Your task to perform on an android device: empty trash in the gmail app Image 0: 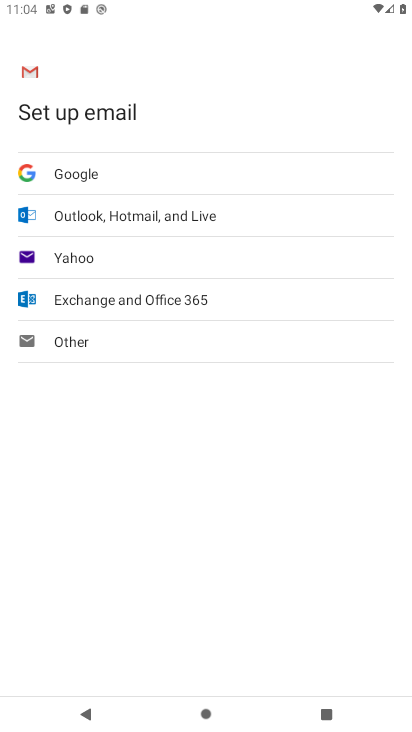
Step 0: press home button
Your task to perform on an android device: empty trash in the gmail app Image 1: 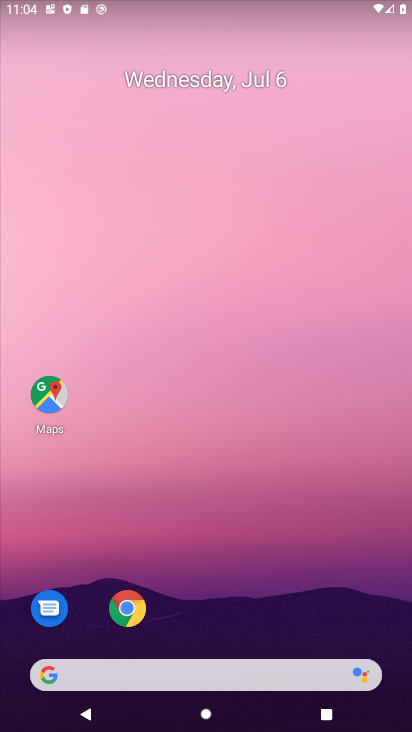
Step 1: drag from (196, 649) to (180, 10)
Your task to perform on an android device: empty trash in the gmail app Image 2: 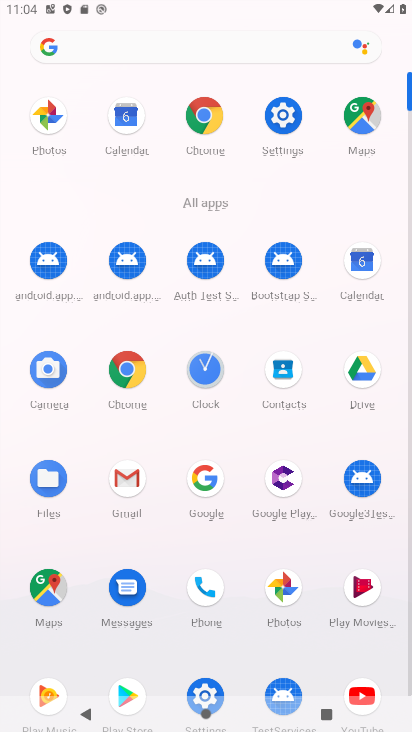
Step 2: click (126, 491)
Your task to perform on an android device: empty trash in the gmail app Image 3: 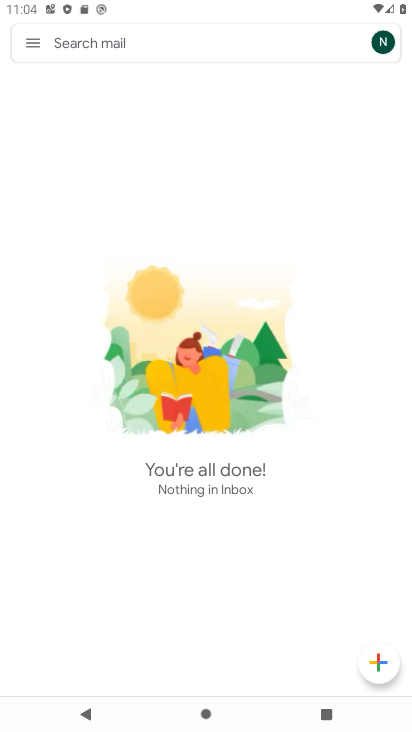
Step 3: click (34, 41)
Your task to perform on an android device: empty trash in the gmail app Image 4: 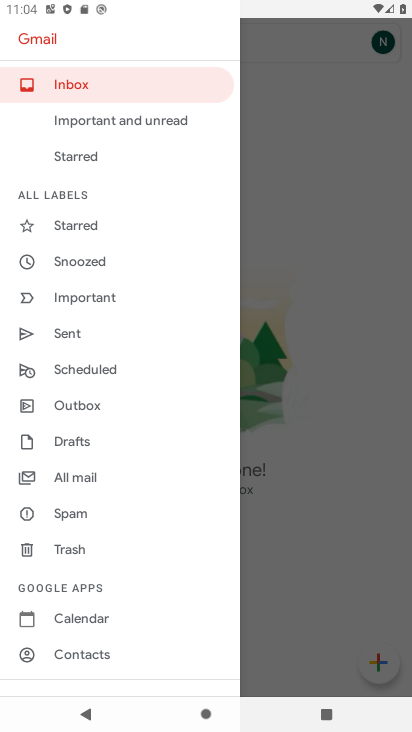
Step 4: click (105, 555)
Your task to perform on an android device: empty trash in the gmail app Image 5: 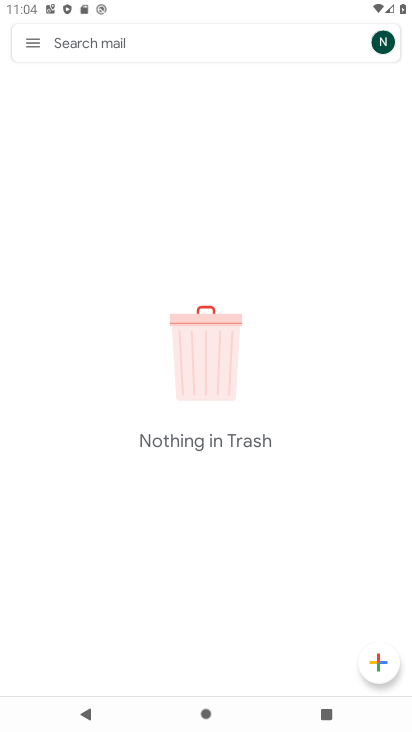
Step 5: task complete